Your task to perform on an android device: Check the weather Image 0: 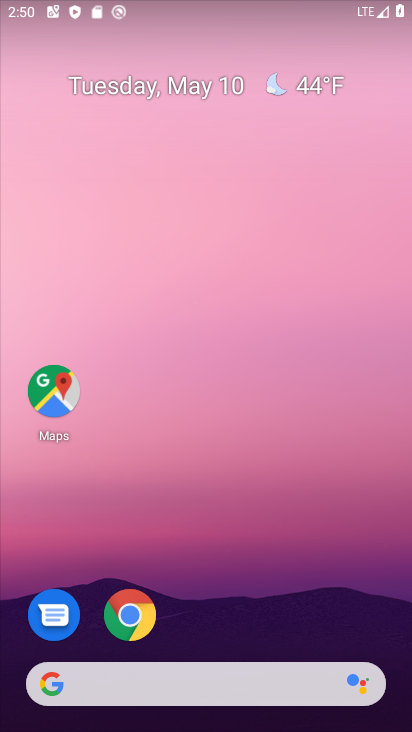
Step 0: click (122, 616)
Your task to perform on an android device: Check the weather Image 1: 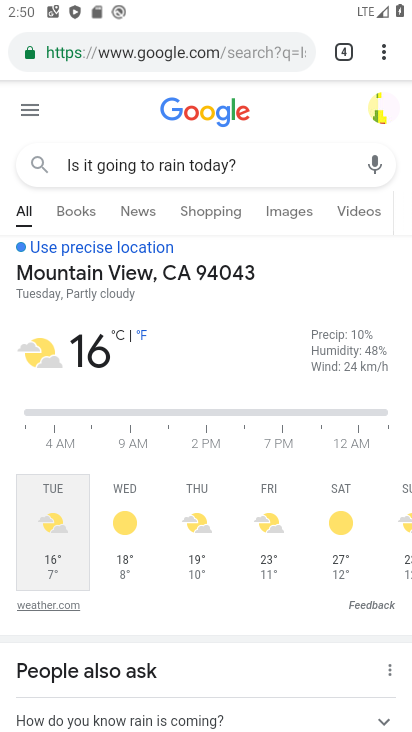
Step 1: click (310, 158)
Your task to perform on an android device: Check the weather Image 2: 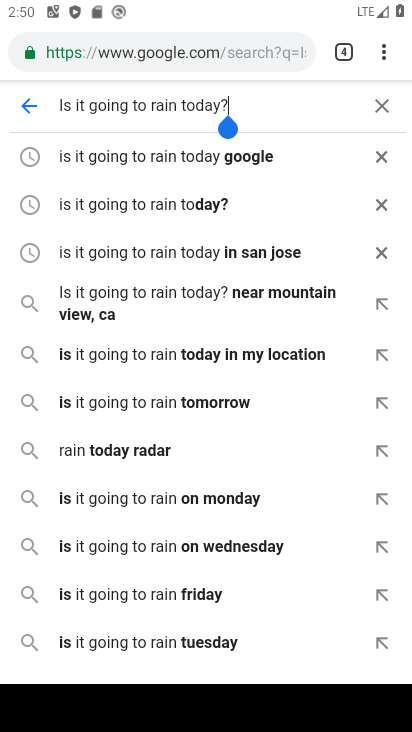
Step 2: click (380, 108)
Your task to perform on an android device: Check the weather Image 3: 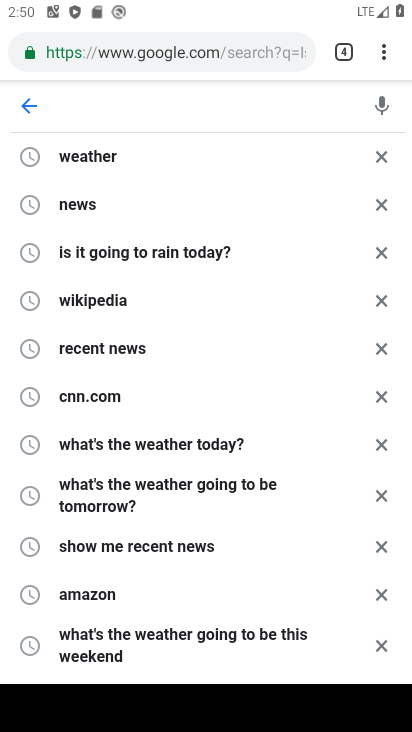
Step 3: type " weather"
Your task to perform on an android device: Check the weather Image 4: 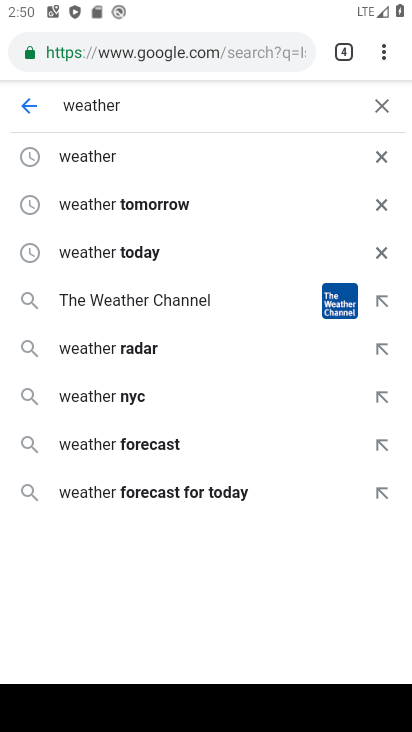
Step 4: click (176, 150)
Your task to perform on an android device: Check the weather Image 5: 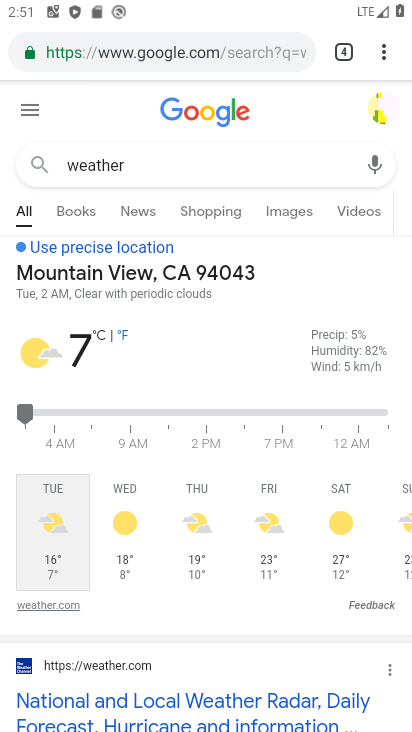
Step 5: task complete